Your task to perform on an android device: What's the weather? Image 0: 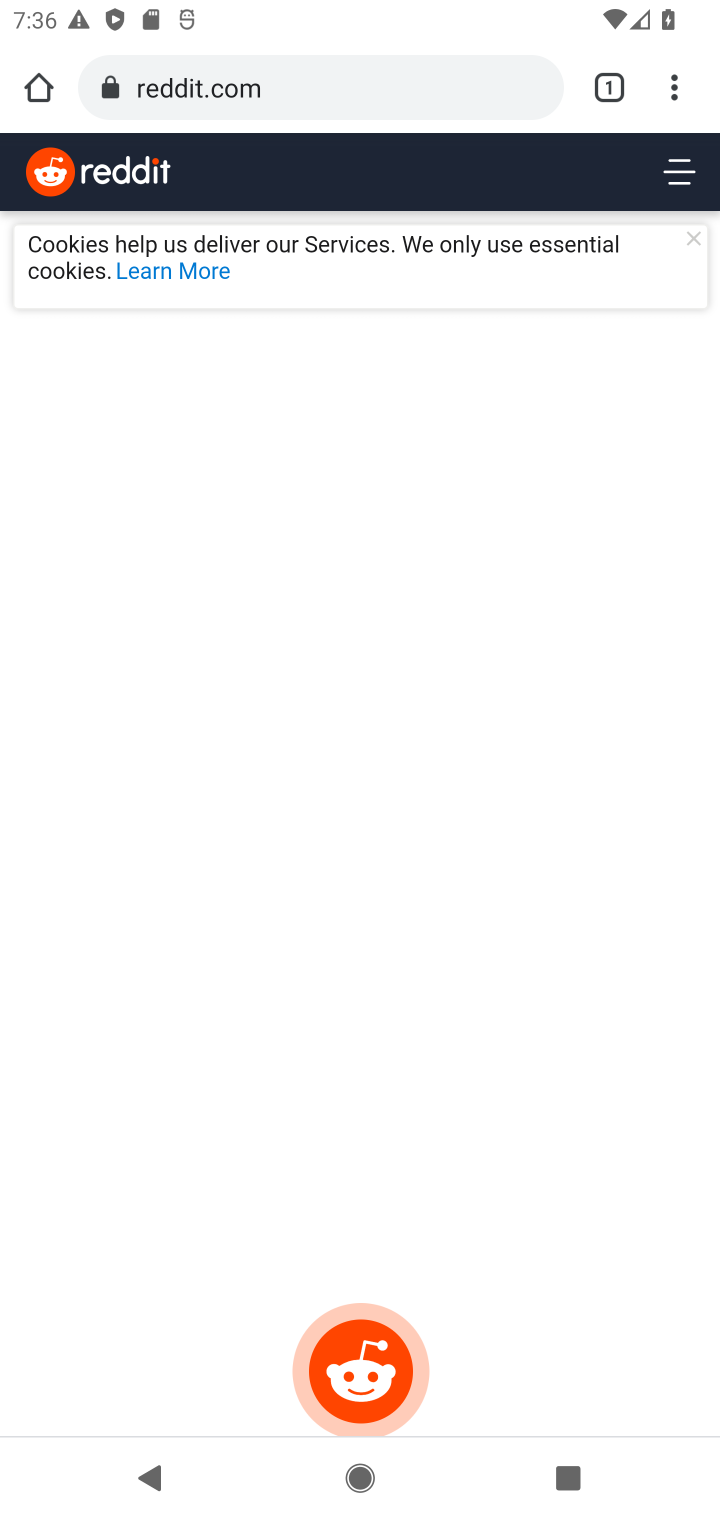
Step 0: press home button
Your task to perform on an android device: What's the weather? Image 1: 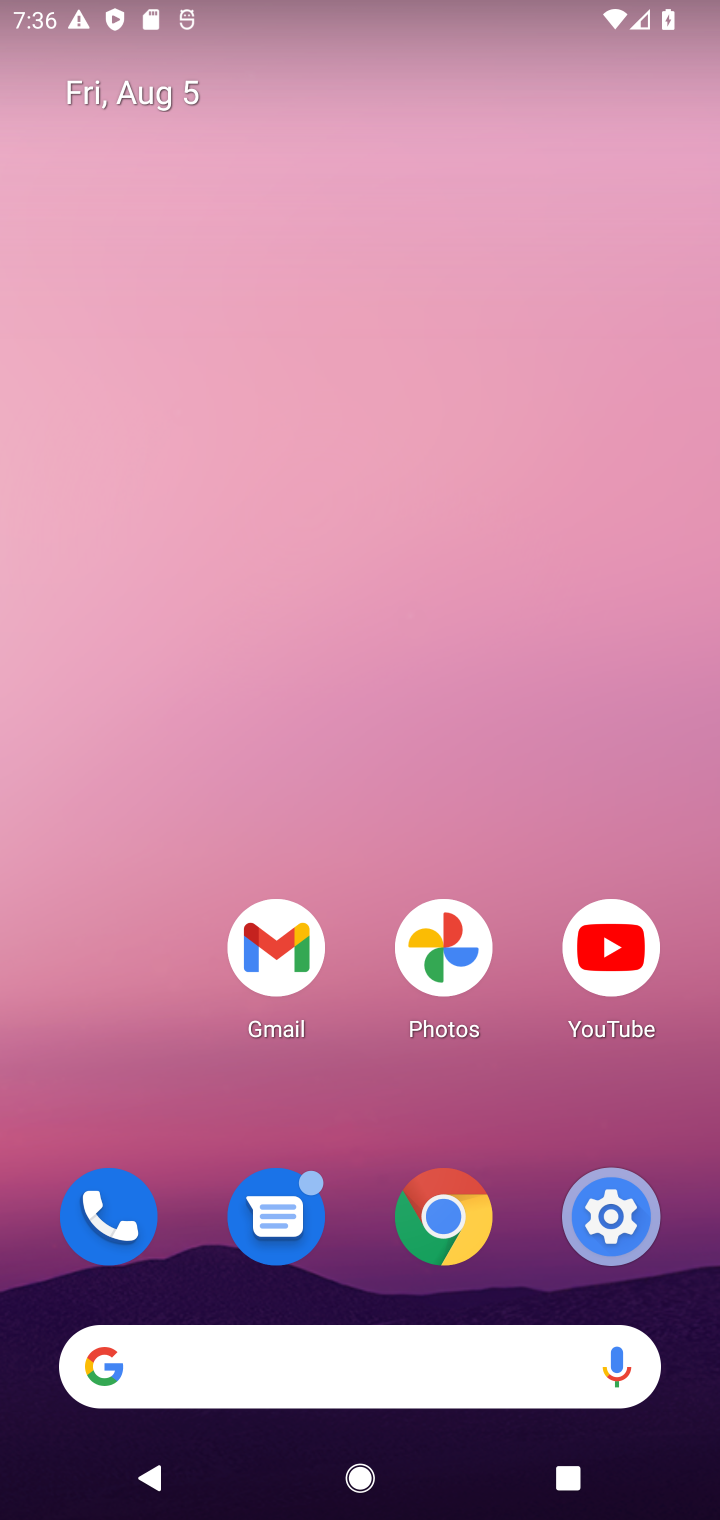
Step 1: click (328, 1347)
Your task to perform on an android device: What's the weather? Image 2: 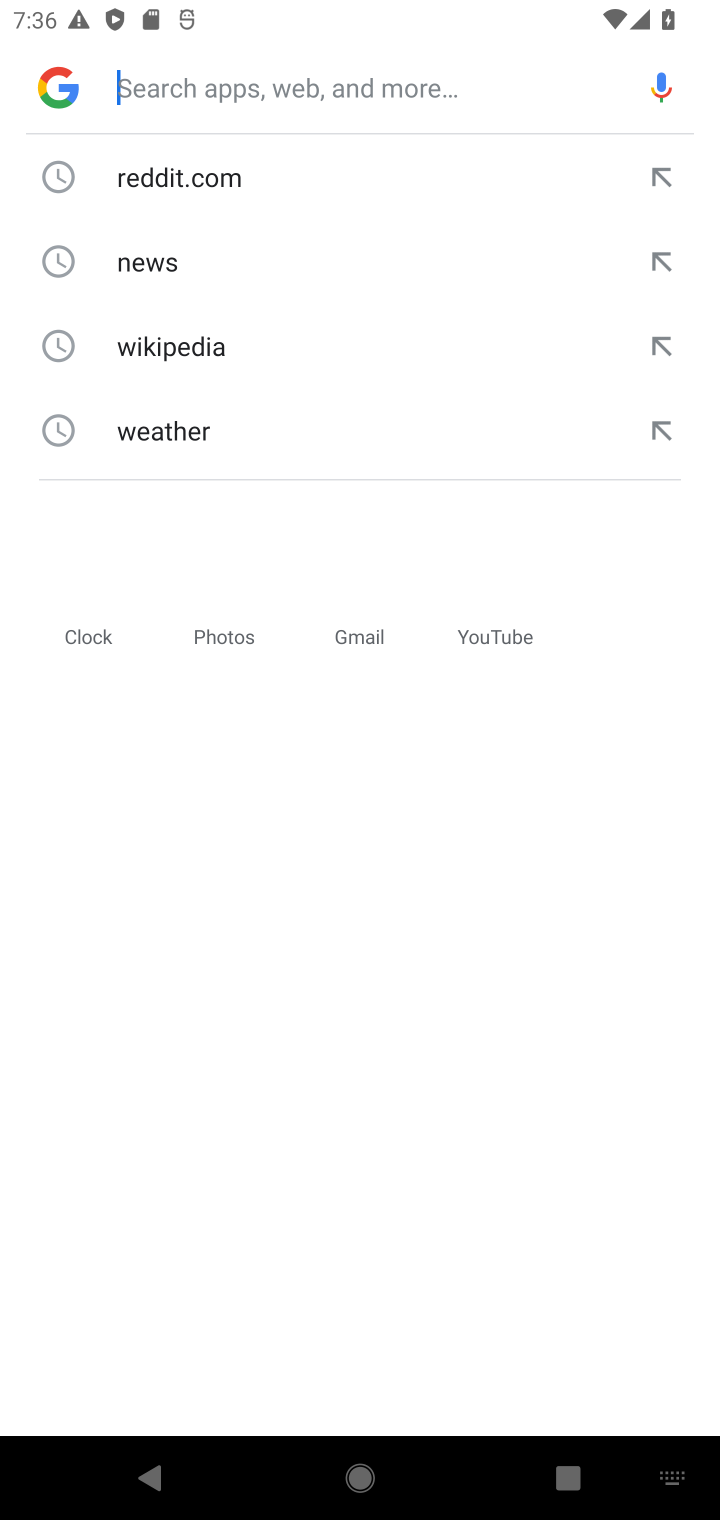
Step 2: type "what's the weather"
Your task to perform on an android device: What's the weather? Image 3: 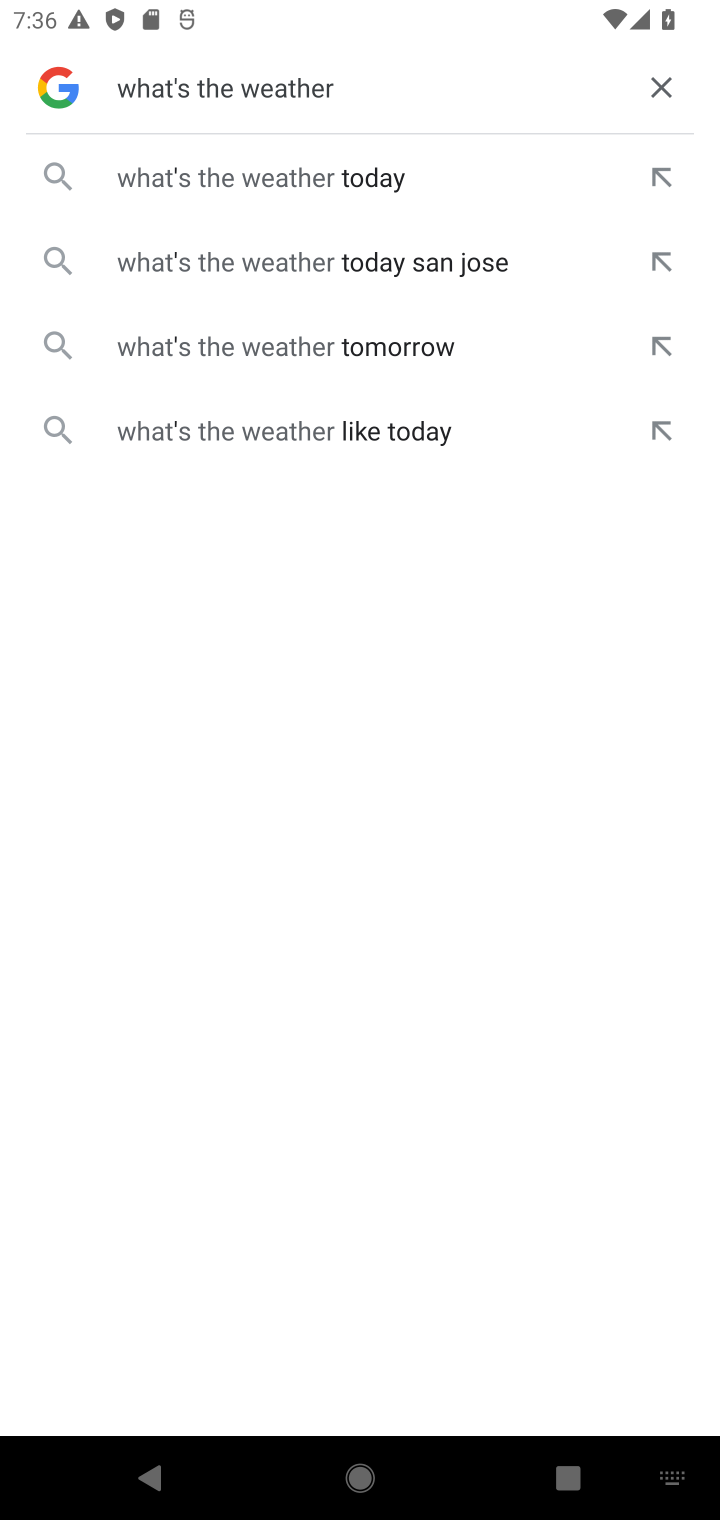
Step 3: type "?"
Your task to perform on an android device: What's the weather? Image 4: 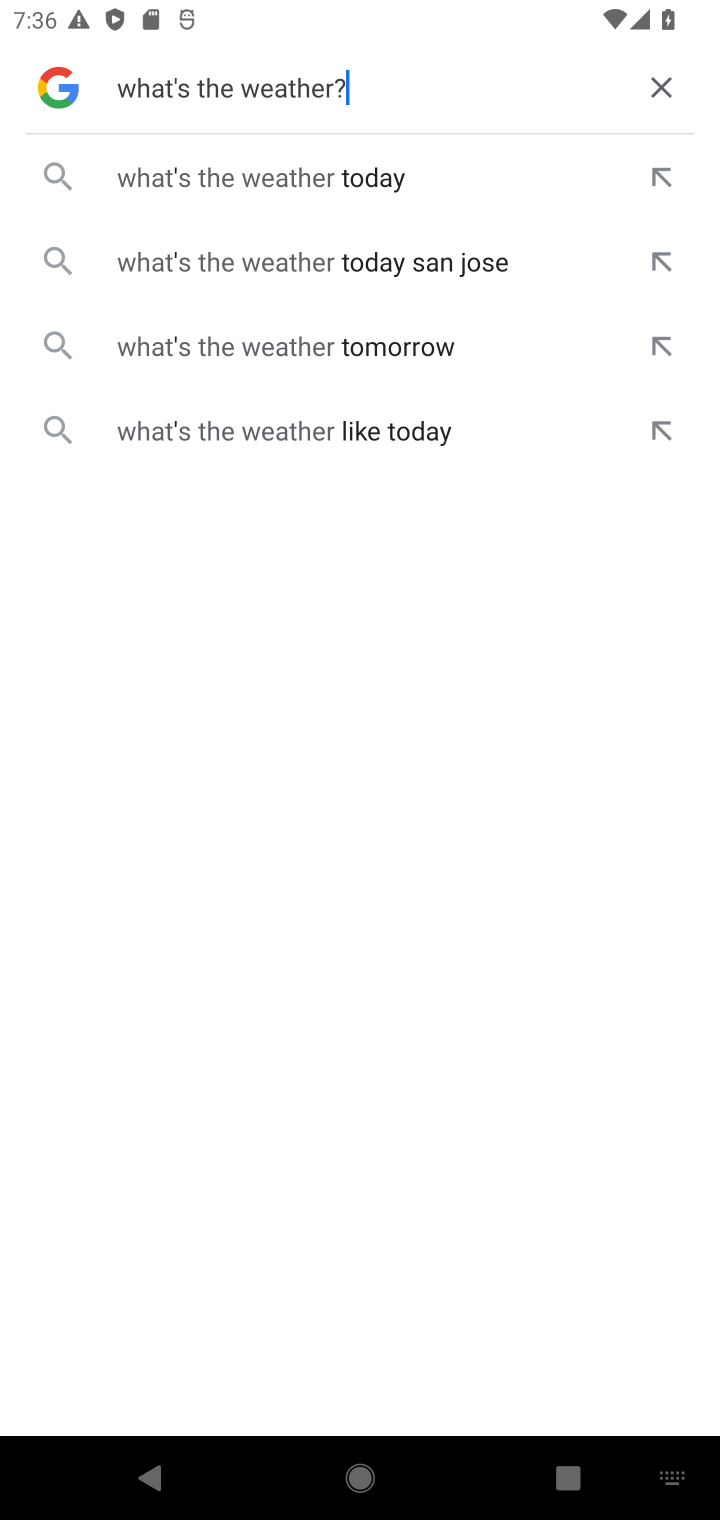
Step 4: click (298, 186)
Your task to perform on an android device: What's the weather? Image 5: 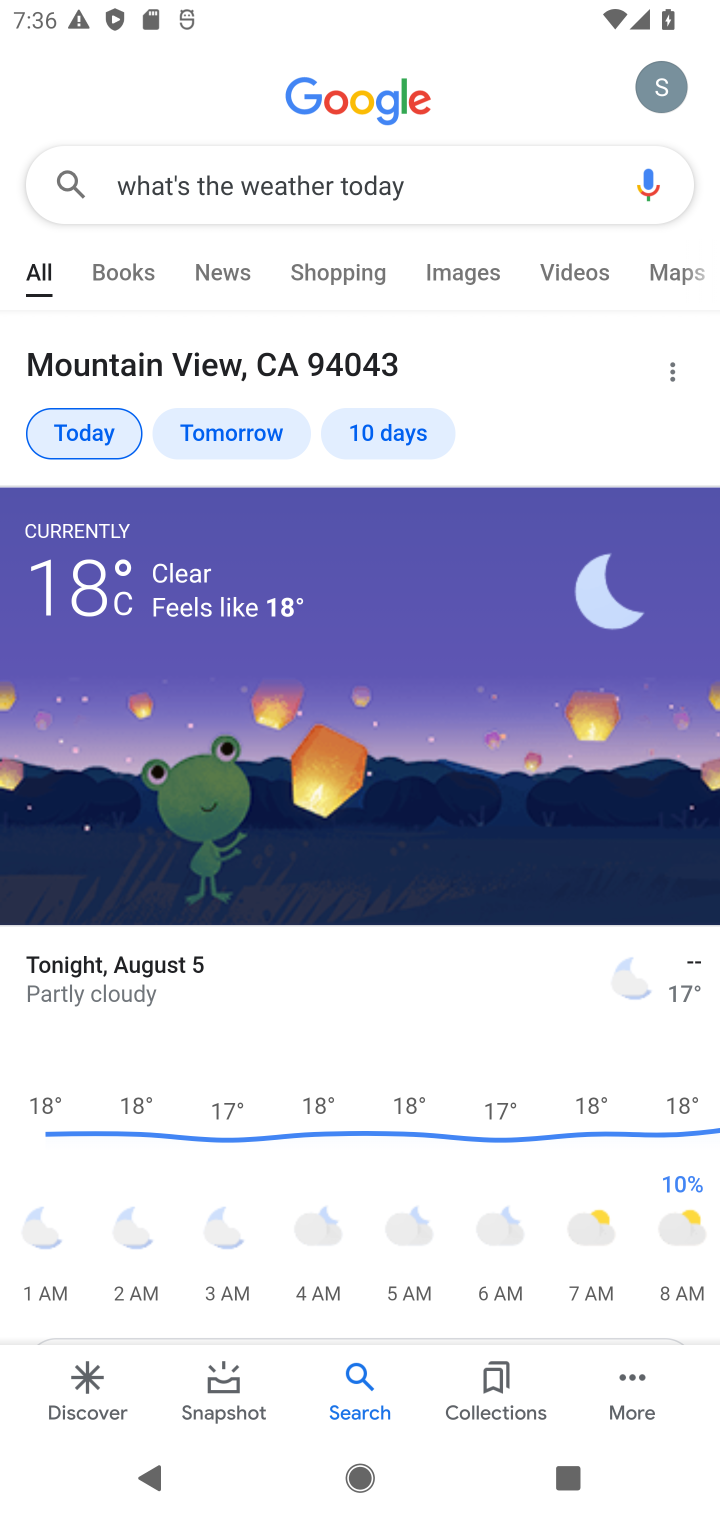
Step 5: task complete